Your task to perform on an android device: Search for "macbook pro 15 inch" on target.com, select the first entry, and add it to the cart. Image 0: 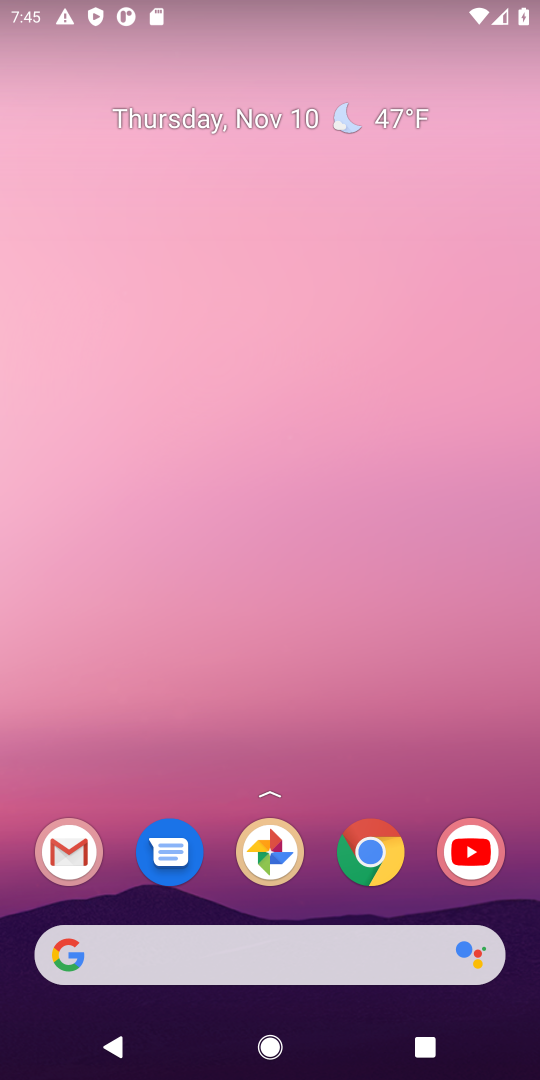
Step 0: click (371, 847)
Your task to perform on an android device: Search for "macbook pro 15 inch" on target.com, select the first entry, and add it to the cart. Image 1: 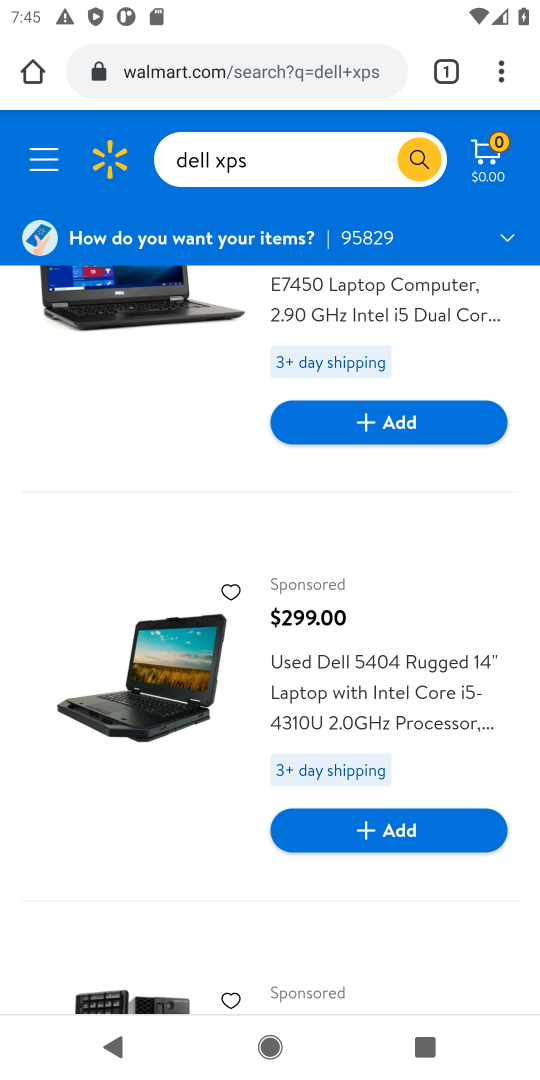
Step 1: click (260, 67)
Your task to perform on an android device: Search for "macbook pro 15 inch" on target.com, select the first entry, and add it to the cart. Image 2: 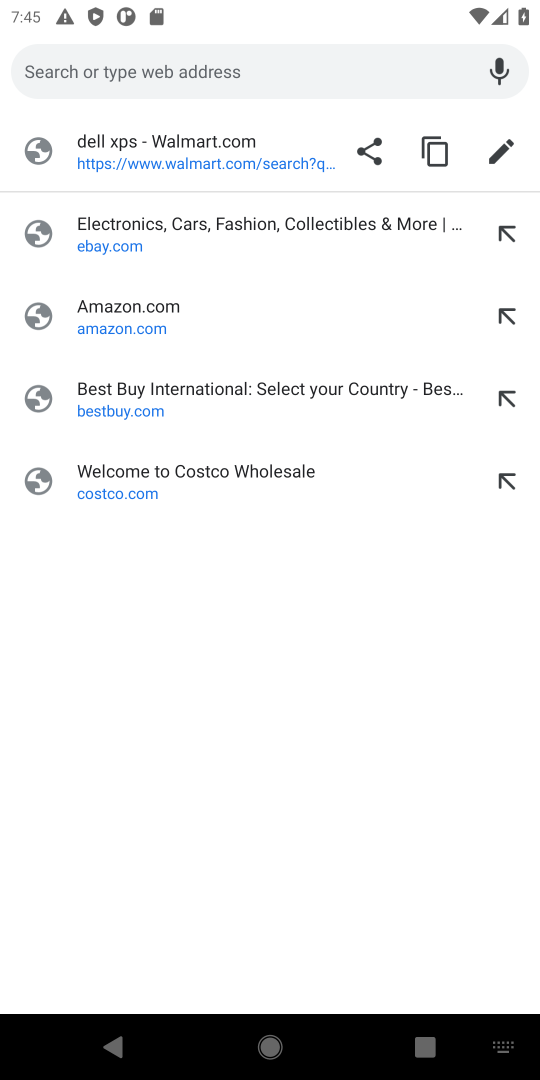
Step 2: type "target.com"
Your task to perform on an android device: Search for "macbook pro 15 inch" on target.com, select the first entry, and add it to the cart. Image 3: 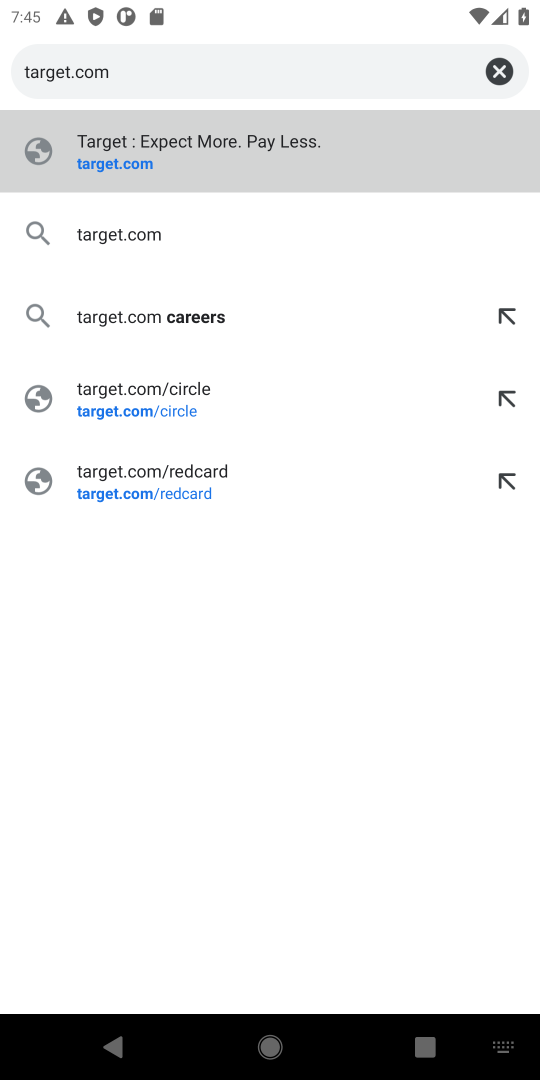
Step 3: press enter
Your task to perform on an android device: Search for "macbook pro 15 inch" on target.com, select the first entry, and add it to the cart. Image 4: 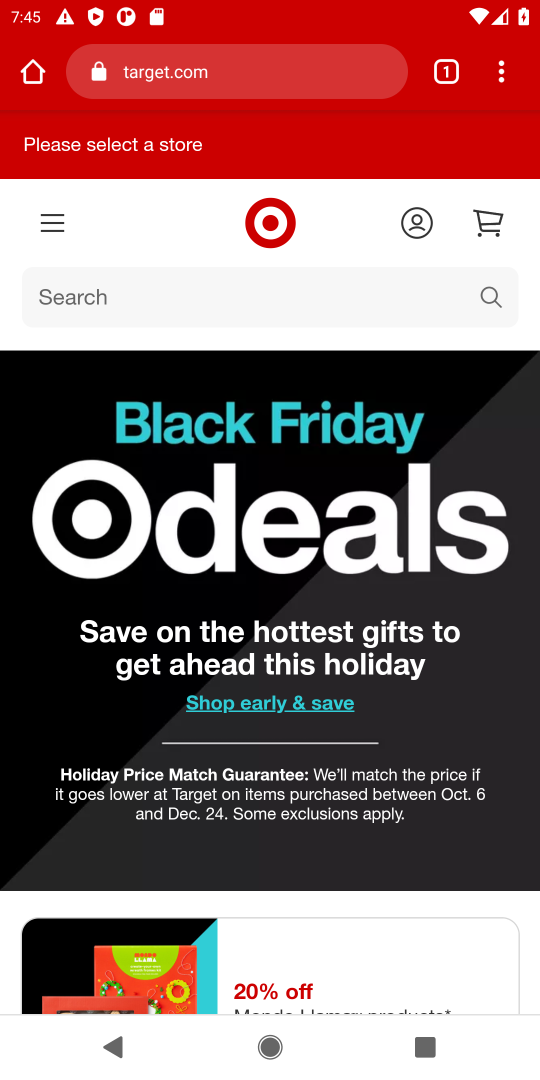
Step 4: click (84, 289)
Your task to perform on an android device: Search for "macbook pro 15 inch" on target.com, select the first entry, and add it to the cart. Image 5: 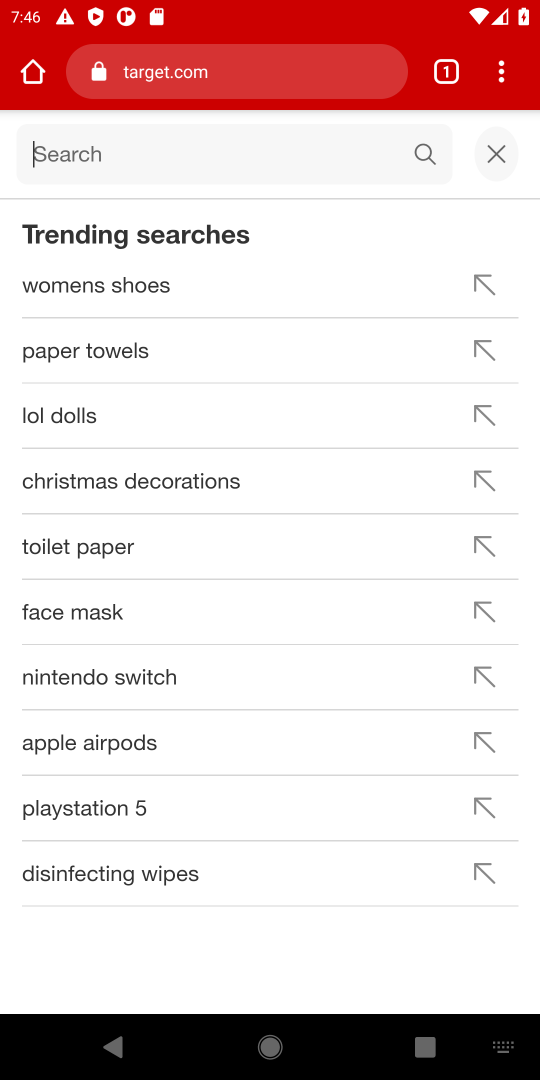
Step 5: type "macbook pro 15 inch"
Your task to perform on an android device: Search for "macbook pro 15 inch" on target.com, select the first entry, and add it to the cart. Image 6: 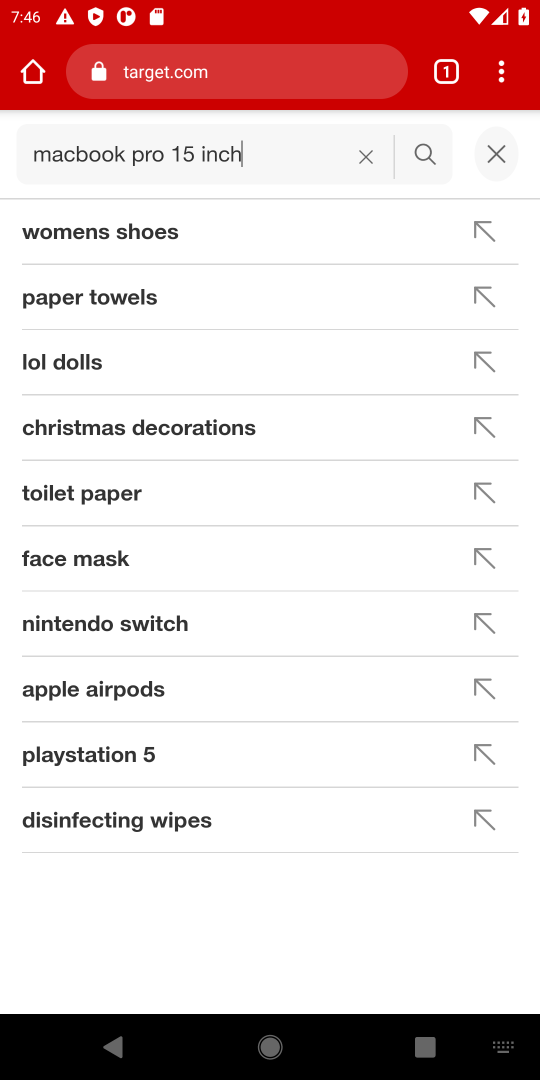
Step 6: press enter
Your task to perform on an android device: Search for "macbook pro 15 inch" on target.com, select the first entry, and add it to the cart. Image 7: 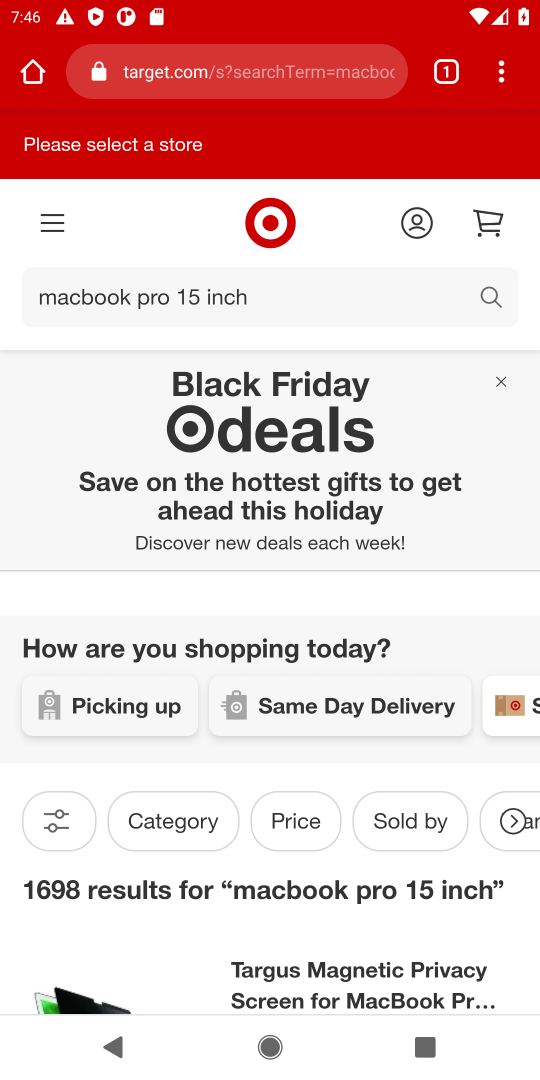
Step 7: task complete